Your task to perform on an android device: empty trash in the gmail app Image 0: 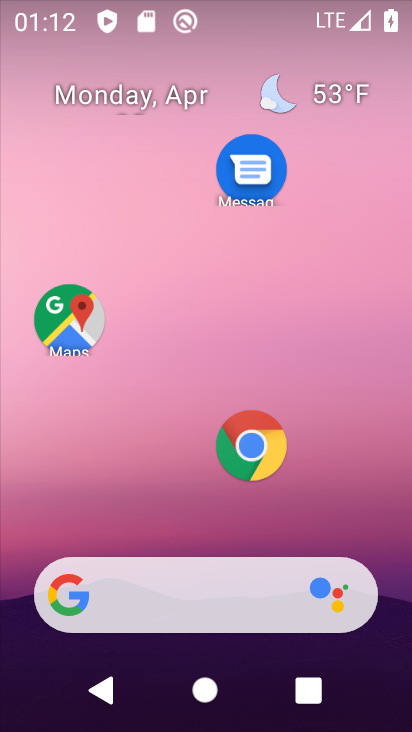
Step 0: drag from (178, 473) to (264, 54)
Your task to perform on an android device: empty trash in the gmail app Image 1: 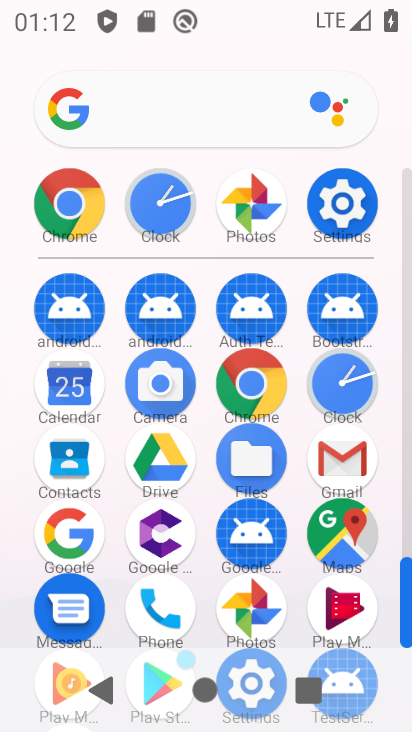
Step 1: click (346, 450)
Your task to perform on an android device: empty trash in the gmail app Image 2: 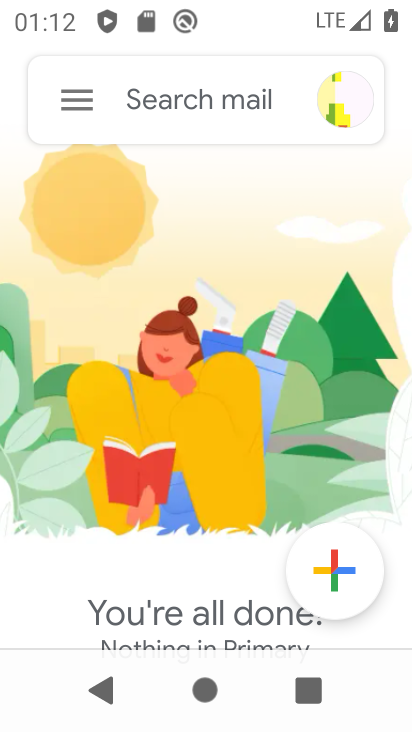
Step 2: click (74, 90)
Your task to perform on an android device: empty trash in the gmail app Image 3: 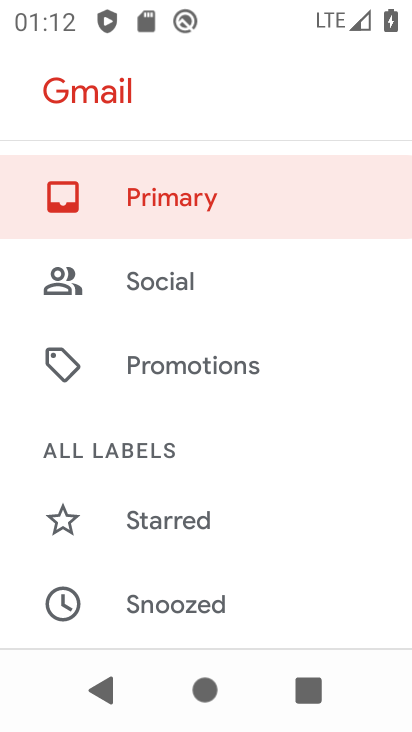
Step 3: drag from (151, 504) to (234, 92)
Your task to perform on an android device: empty trash in the gmail app Image 4: 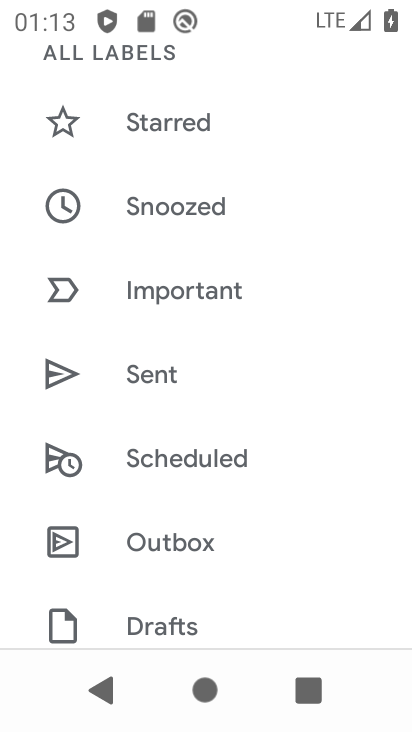
Step 4: drag from (199, 512) to (252, 128)
Your task to perform on an android device: empty trash in the gmail app Image 5: 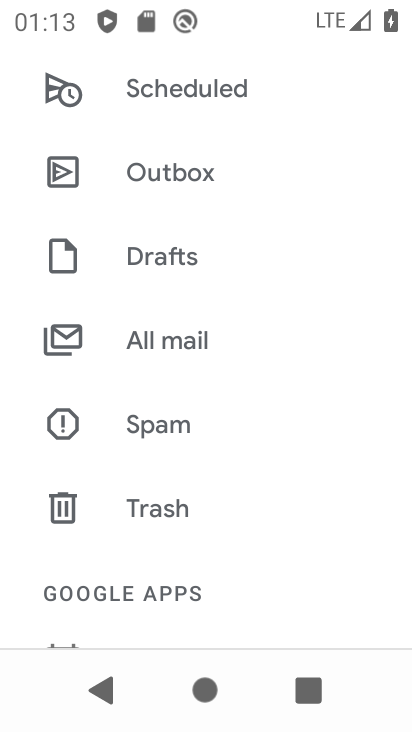
Step 5: click (151, 492)
Your task to perform on an android device: empty trash in the gmail app Image 6: 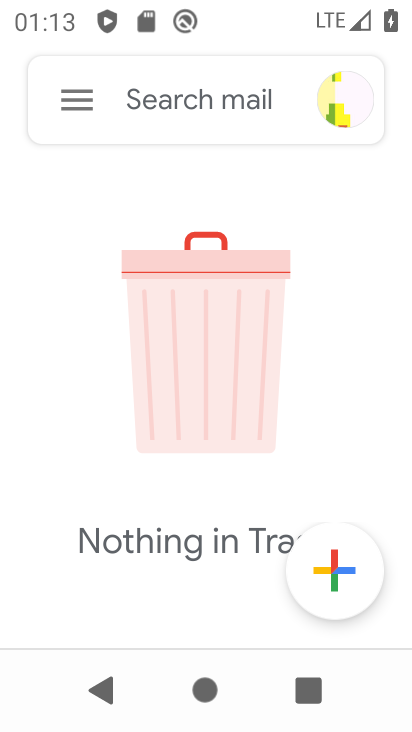
Step 6: task complete